Your task to perform on an android device: Search for Italian restaurants on Maps Image 0: 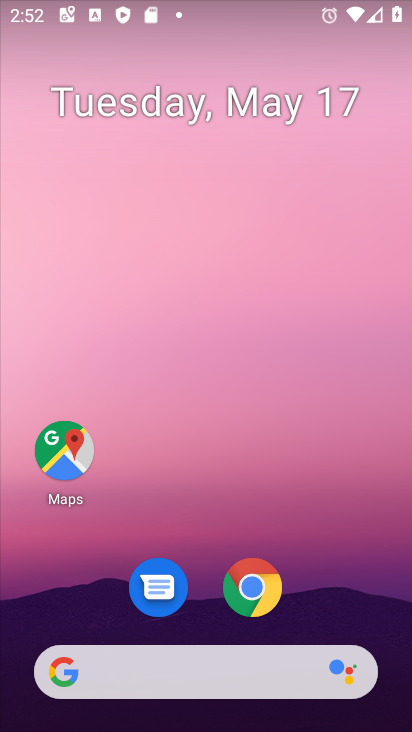
Step 0: drag from (202, 632) to (200, 43)
Your task to perform on an android device: Search for Italian restaurants on Maps Image 1: 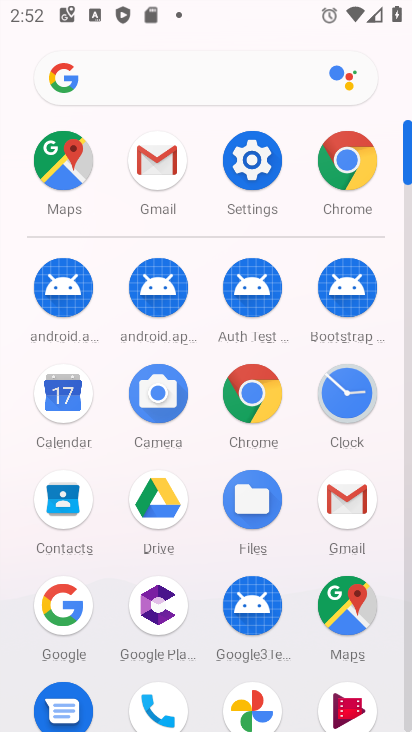
Step 1: drag from (200, 680) to (186, 181)
Your task to perform on an android device: Search for Italian restaurants on Maps Image 2: 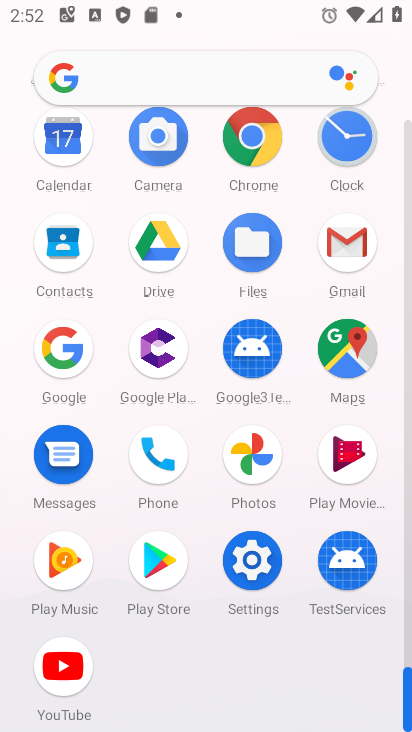
Step 2: click (343, 346)
Your task to perform on an android device: Search for Italian restaurants on Maps Image 3: 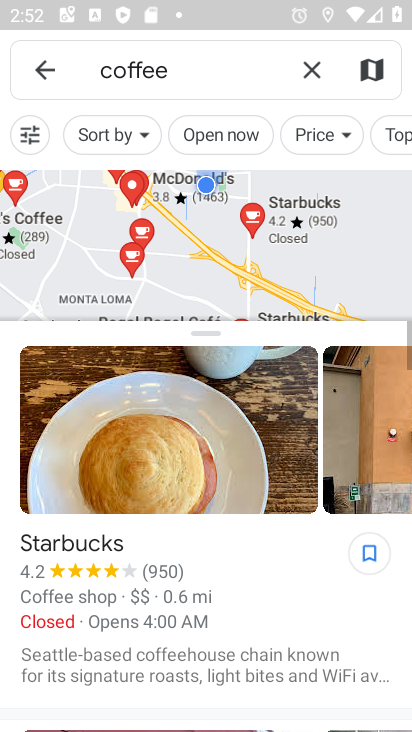
Step 3: click (304, 75)
Your task to perform on an android device: Search for Italian restaurants on Maps Image 4: 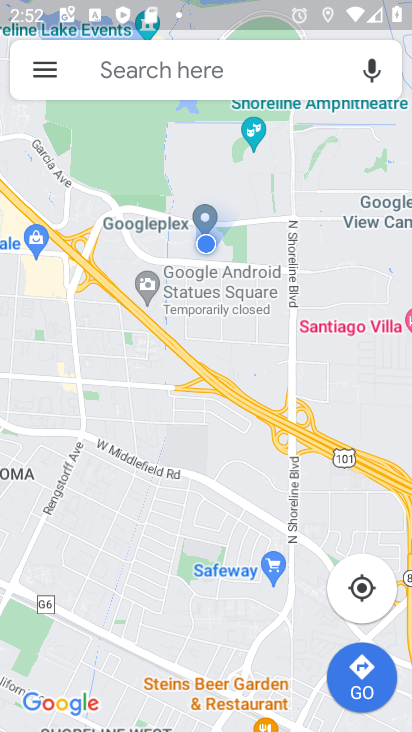
Step 4: click (188, 81)
Your task to perform on an android device: Search for Italian restaurants on Maps Image 5: 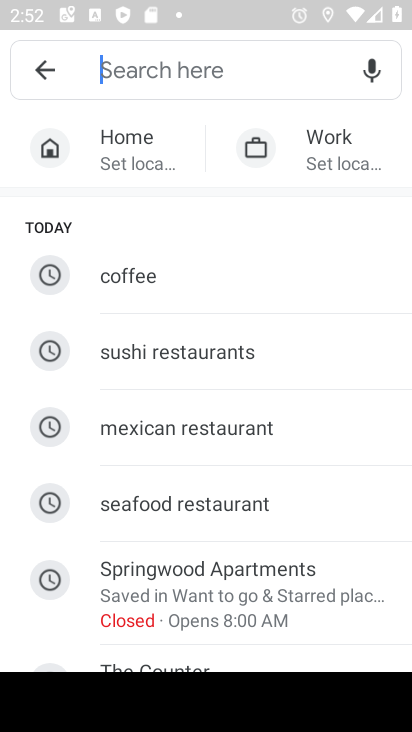
Step 5: drag from (206, 506) to (200, 271)
Your task to perform on an android device: Search for Italian restaurants on Maps Image 6: 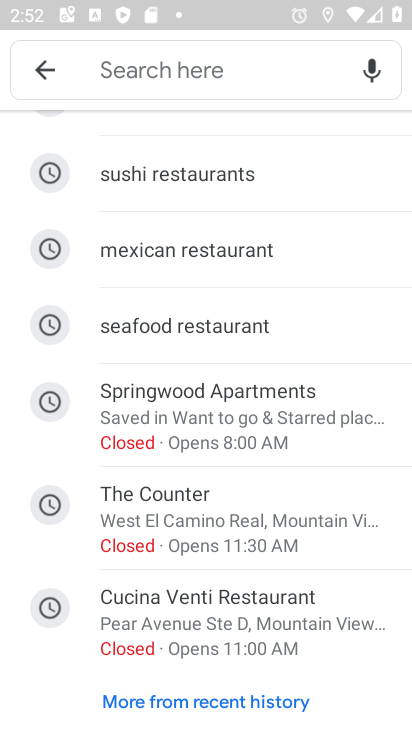
Step 6: drag from (206, 552) to (204, 237)
Your task to perform on an android device: Search for Italian restaurants on Maps Image 7: 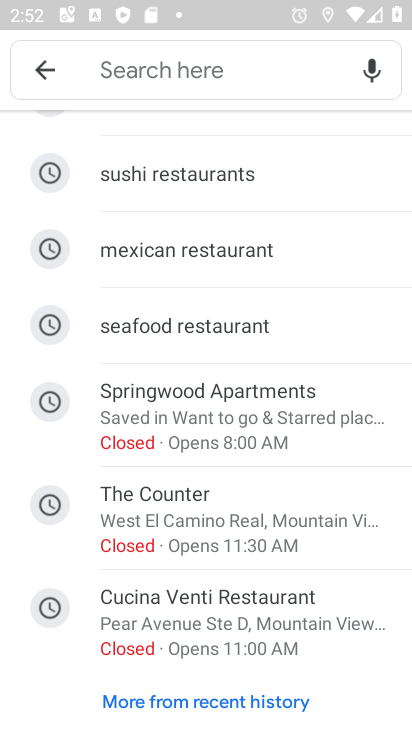
Step 7: drag from (189, 270) to (223, 587)
Your task to perform on an android device: Search for Italian restaurants on Maps Image 8: 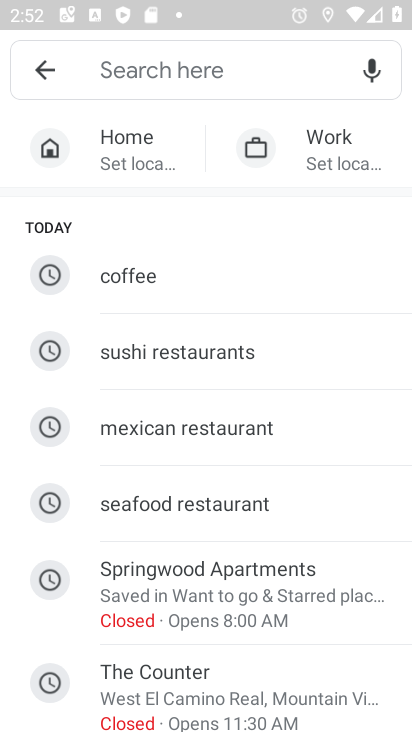
Step 8: click (183, 77)
Your task to perform on an android device: Search for Italian restaurants on Maps Image 9: 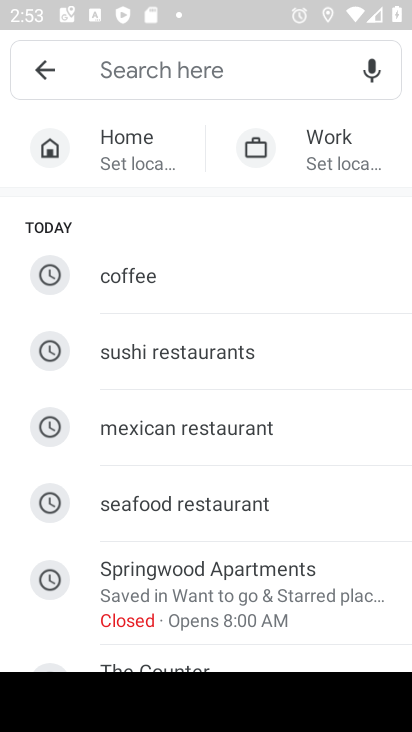
Step 9: type "italian restaurants"
Your task to perform on an android device: Search for Italian restaurants on Maps Image 10: 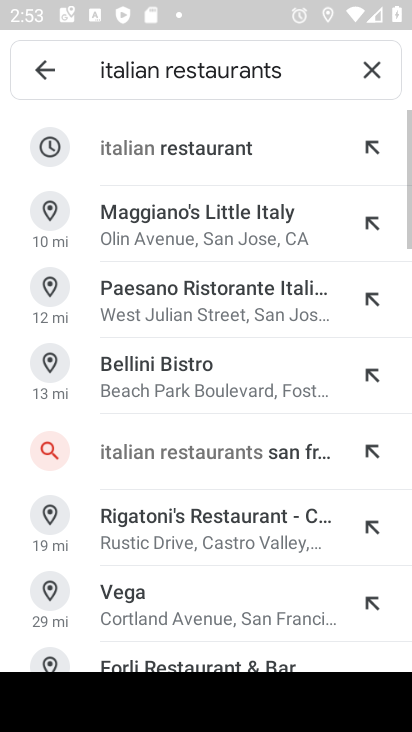
Step 10: click (165, 133)
Your task to perform on an android device: Search for Italian restaurants on Maps Image 11: 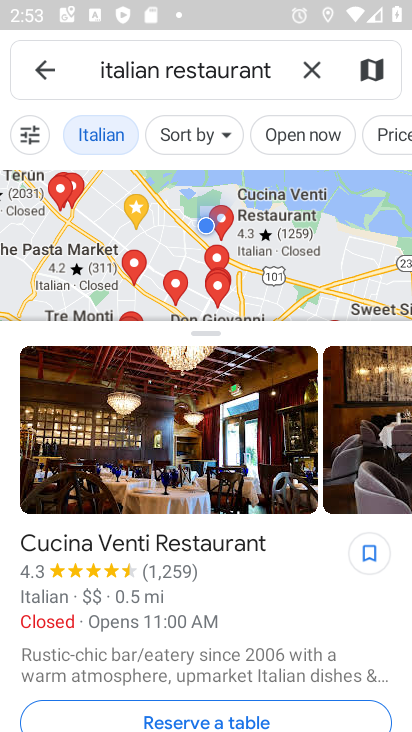
Step 11: task complete